Your task to perform on an android device: Open maps Image 0: 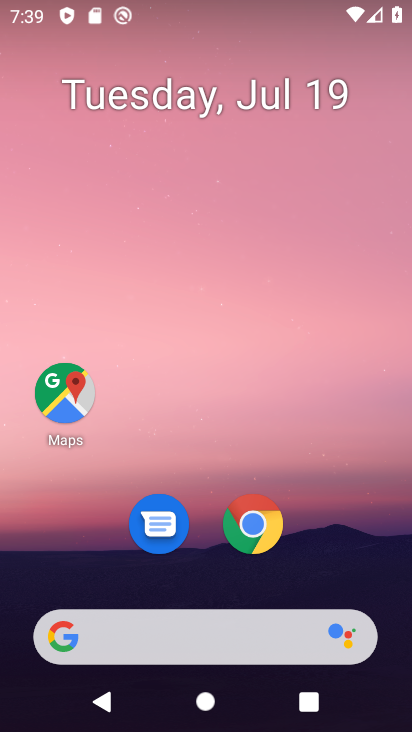
Step 0: click (49, 393)
Your task to perform on an android device: Open maps Image 1: 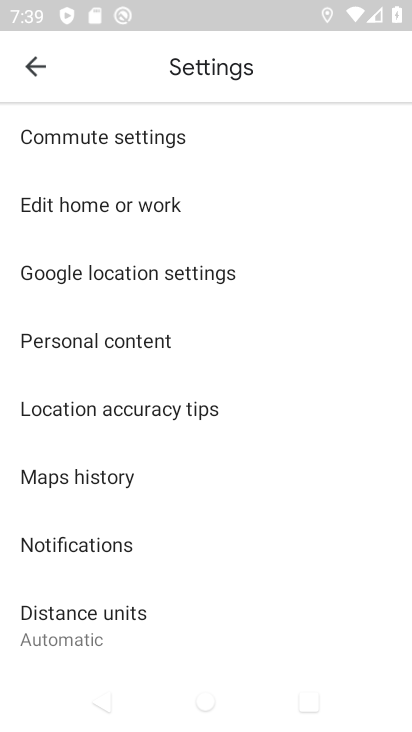
Step 1: click (36, 71)
Your task to perform on an android device: Open maps Image 2: 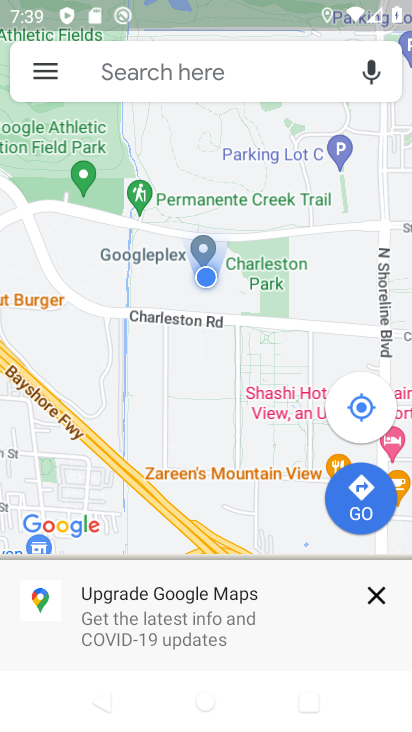
Step 2: task complete